Your task to perform on an android device: turn on data saver in the chrome app Image 0: 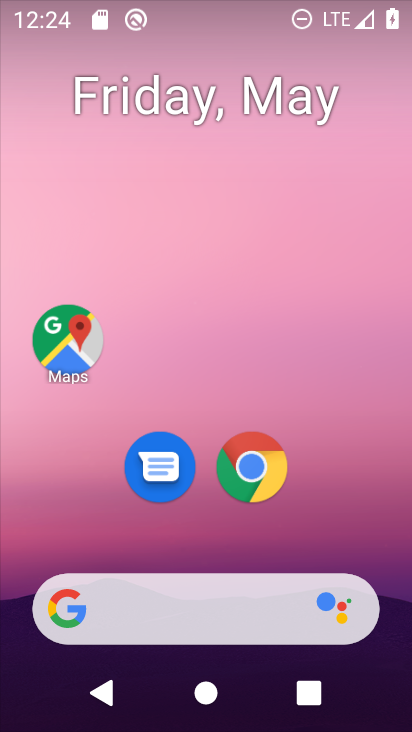
Step 0: drag from (301, 564) to (356, 15)
Your task to perform on an android device: turn on data saver in the chrome app Image 1: 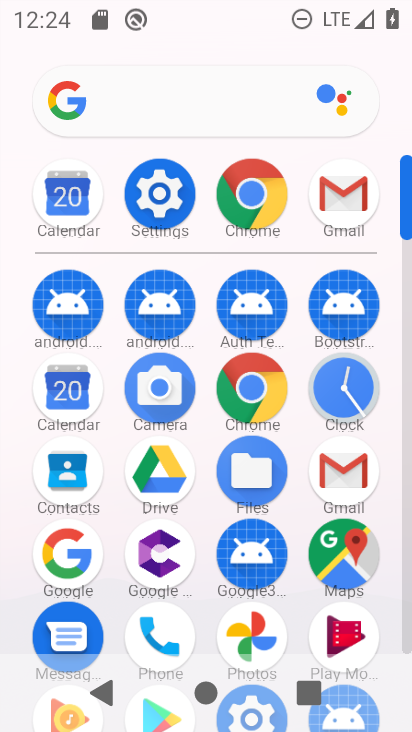
Step 1: click (260, 394)
Your task to perform on an android device: turn on data saver in the chrome app Image 2: 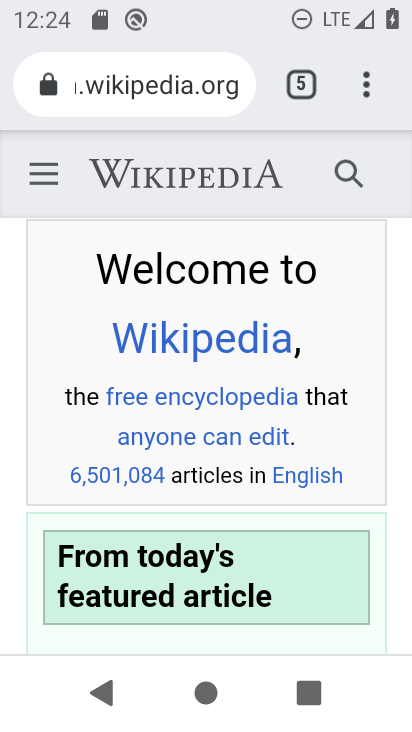
Step 2: drag from (365, 79) to (357, 115)
Your task to perform on an android device: turn on data saver in the chrome app Image 3: 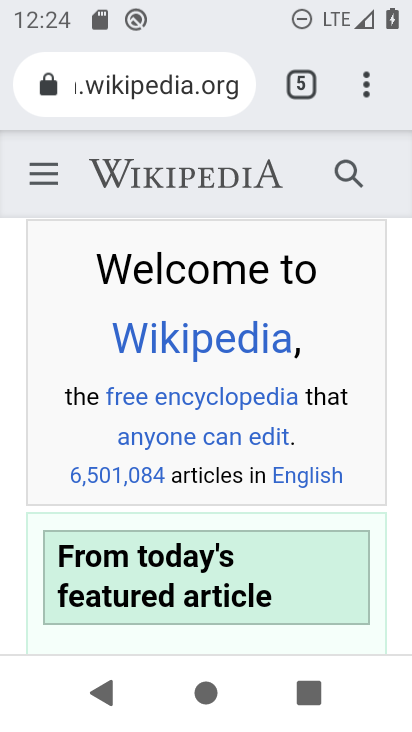
Step 3: drag from (371, 84) to (129, 520)
Your task to perform on an android device: turn on data saver in the chrome app Image 4: 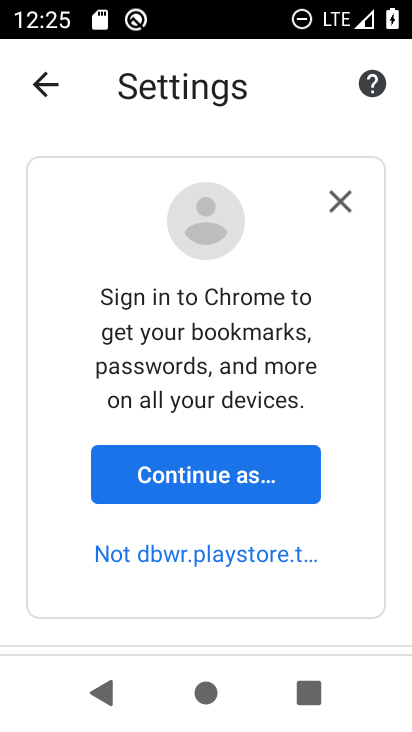
Step 4: drag from (165, 584) to (335, 19)
Your task to perform on an android device: turn on data saver in the chrome app Image 5: 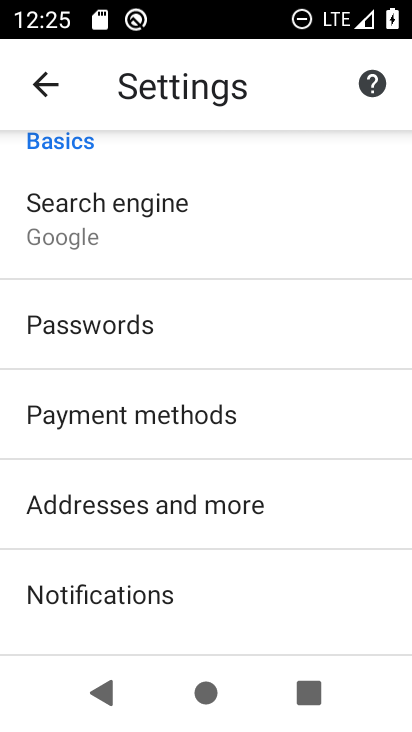
Step 5: drag from (233, 602) to (266, 43)
Your task to perform on an android device: turn on data saver in the chrome app Image 6: 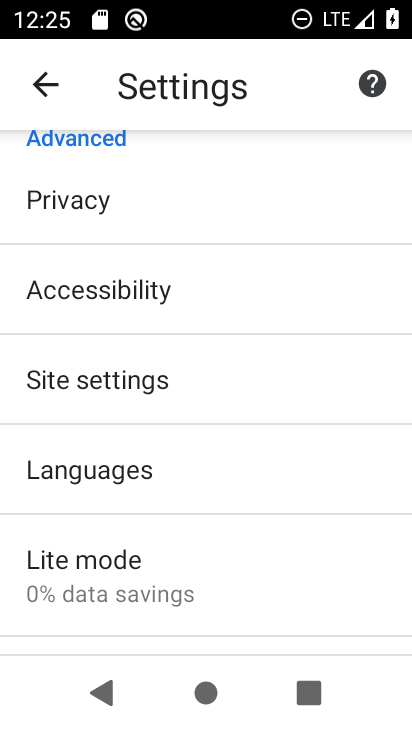
Step 6: click (120, 556)
Your task to perform on an android device: turn on data saver in the chrome app Image 7: 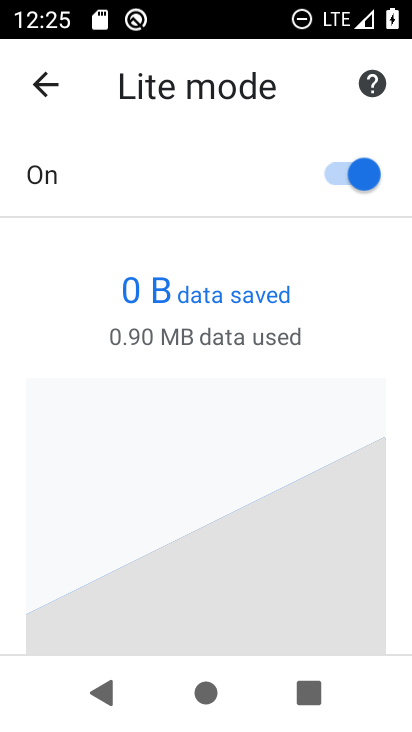
Step 7: task complete